Your task to perform on an android device: toggle airplane mode Image 0: 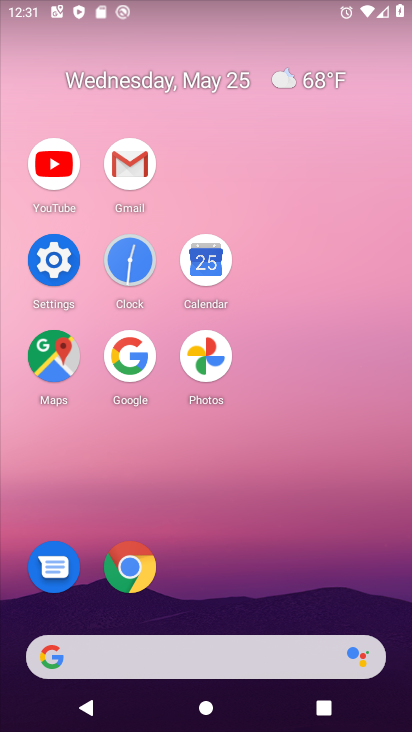
Step 0: click (63, 242)
Your task to perform on an android device: toggle airplane mode Image 1: 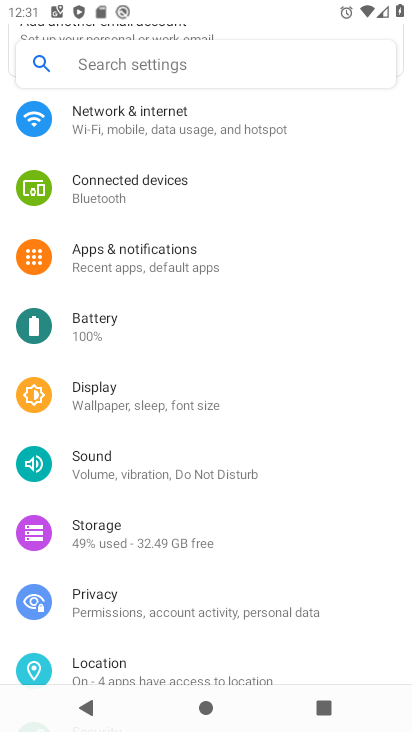
Step 1: click (177, 119)
Your task to perform on an android device: toggle airplane mode Image 2: 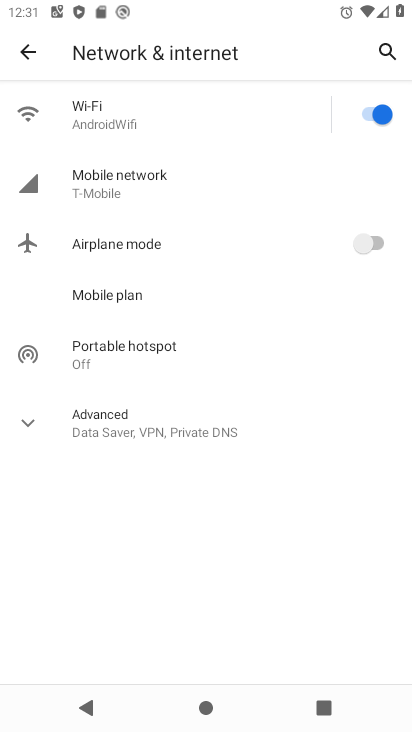
Step 2: click (360, 247)
Your task to perform on an android device: toggle airplane mode Image 3: 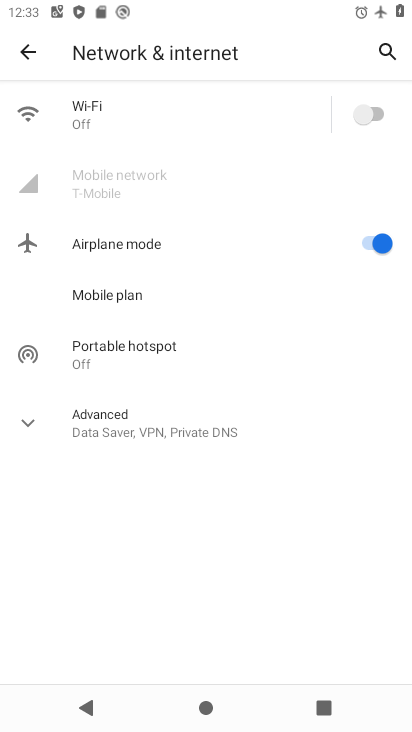
Step 3: task complete